Your task to perform on an android device: Open Google Maps Image 0: 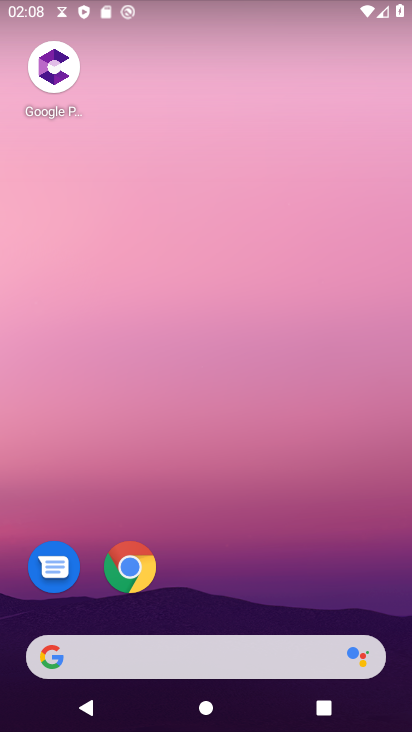
Step 0: drag from (197, 625) to (312, 64)
Your task to perform on an android device: Open Google Maps Image 1: 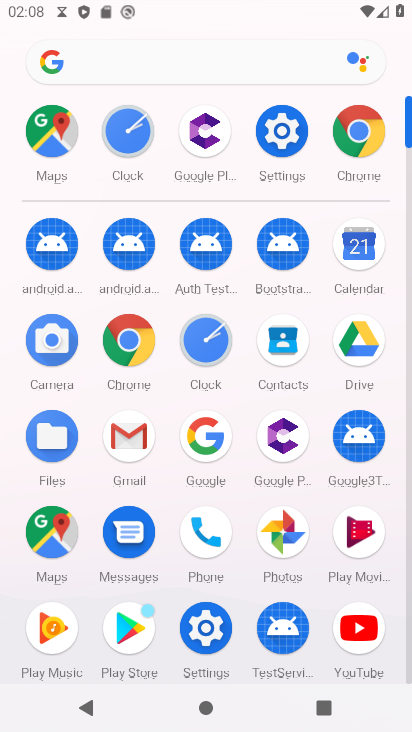
Step 1: click (52, 141)
Your task to perform on an android device: Open Google Maps Image 2: 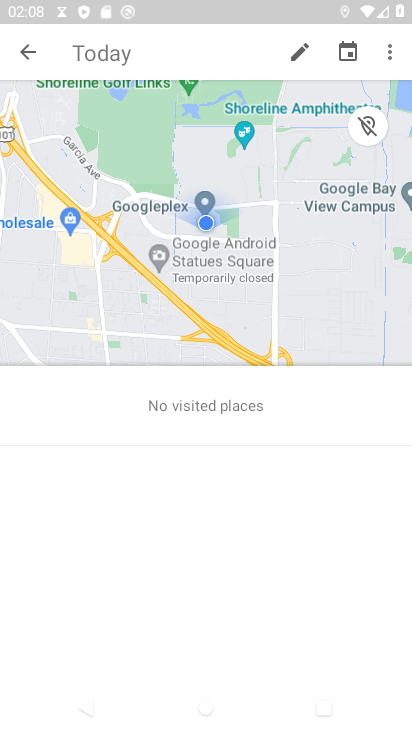
Step 2: click (34, 55)
Your task to perform on an android device: Open Google Maps Image 3: 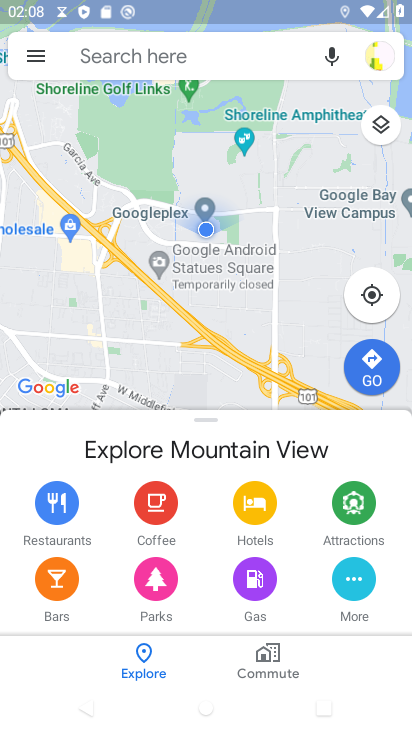
Step 3: task complete